Your task to perform on an android device: Open the phone app and click the voicemail tab. Image 0: 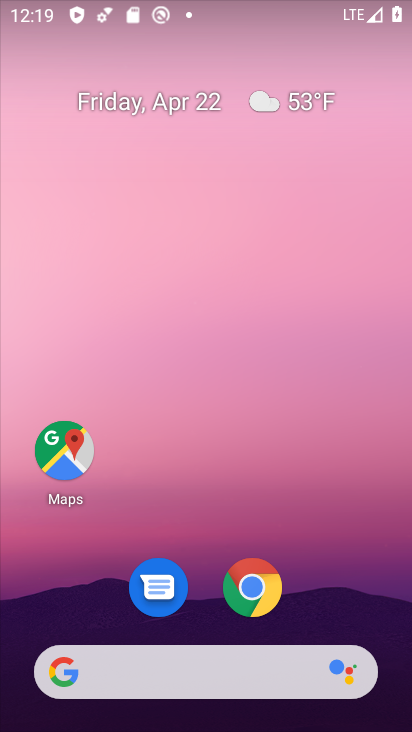
Step 0: drag from (224, 502) to (255, 192)
Your task to perform on an android device: Open the phone app and click the voicemail tab. Image 1: 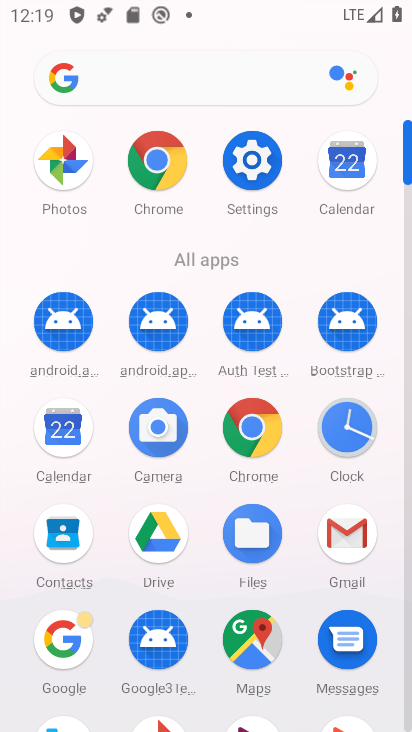
Step 1: drag from (183, 648) to (228, 211)
Your task to perform on an android device: Open the phone app and click the voicemail tab. Image 2: 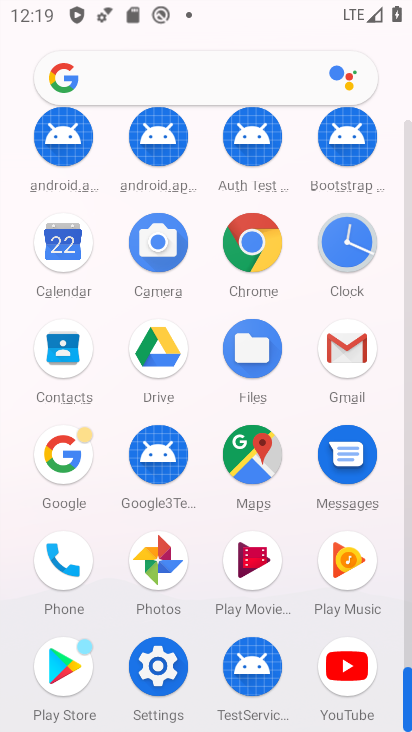
Step 2: click (54, 560)
Your task to perform on an android device: Open the phone app and click the voicemail tab. Image 3: 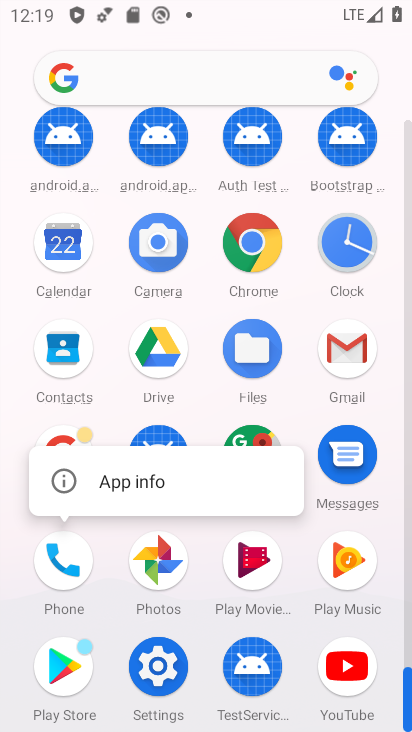
Step 3: click (153, 478)
Your task to perform on an android device: Open the phone app and click the voicemail tab. Image 4: 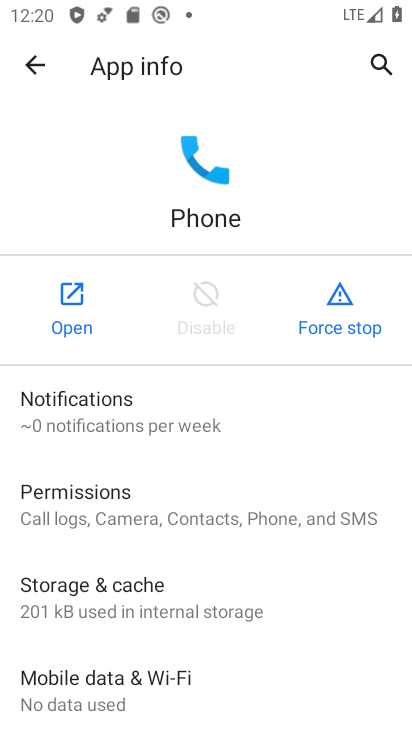
Step 4: click (62, 304)
Your task to perform on an android device: Open the phone app and click the voicemail tab. Image 5: 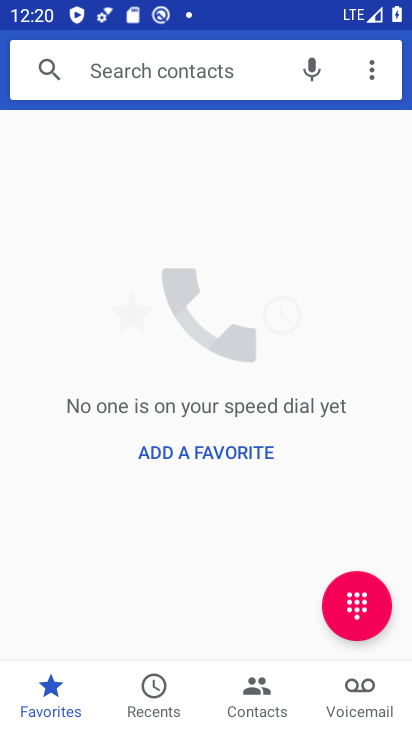
Step 5: click (336, 700)
Your task to perform on an android device: Open the phone app and click the voicemail tab. Image 6: 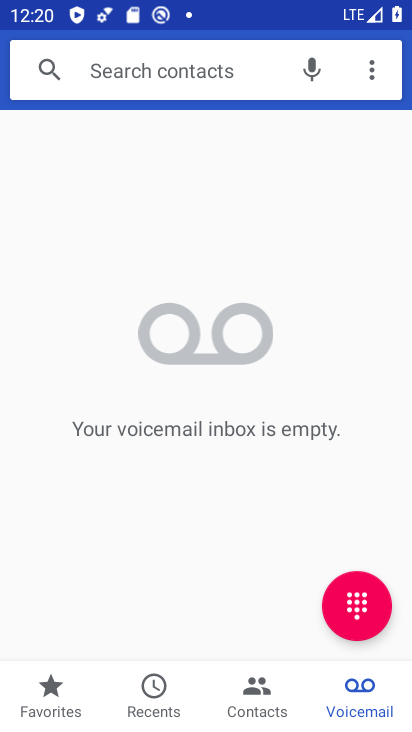
Step 6: task complete